Your task to perform on an android device: empty trash in google photos Image 0: 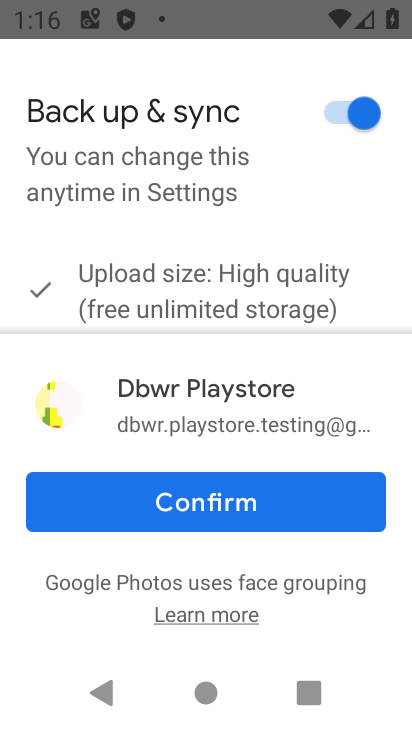
Step 0: click (238, 490)
Your task to perform on an android device: empty trash in google photos Image 1: 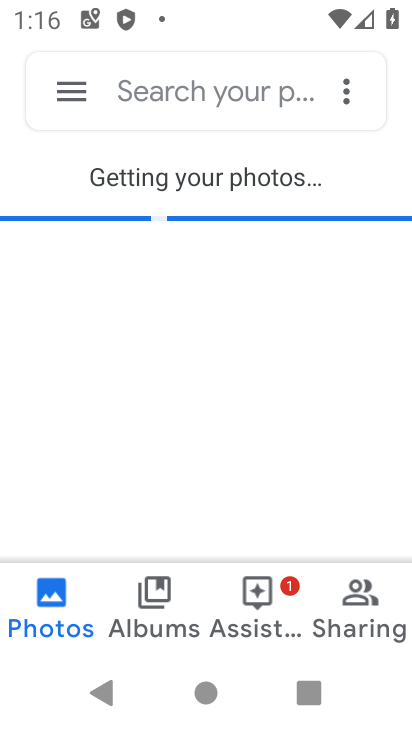
Step 1: click (77, 106)
Your task to perform on an android device: empty trash in google photos Image 2: 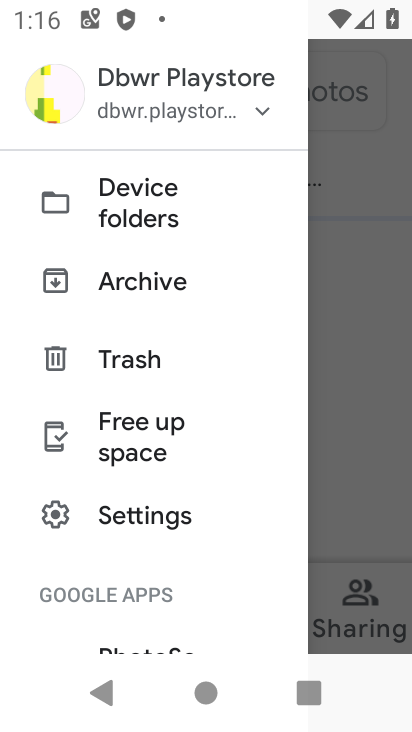
Step 2: click (143, 355)
Your task to perform on an android device: empty trash in google photos Image 3: 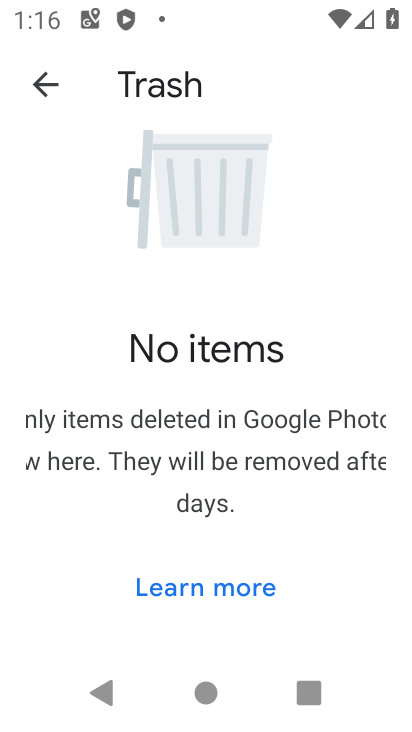
Step 3: task complete